Your task to perform on an android device: Clear all items from cart on target. Add "macbook air" to the cart on target Image 0: 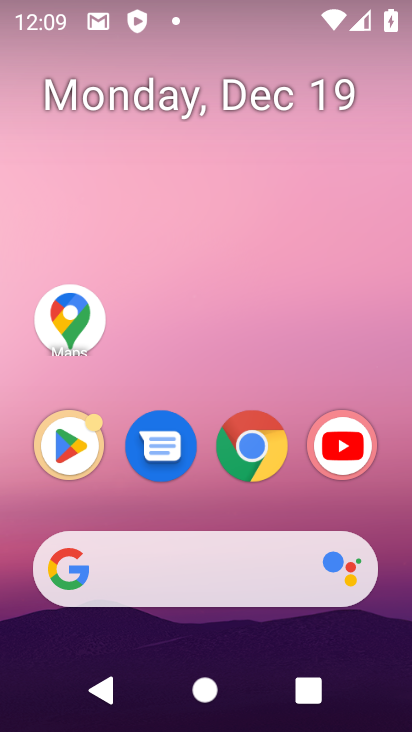
Step 0: click (214, 468)
Your task to perform on an android device: Clear all items from cart on target. Add "macbook air" to the cart on target Image 1: 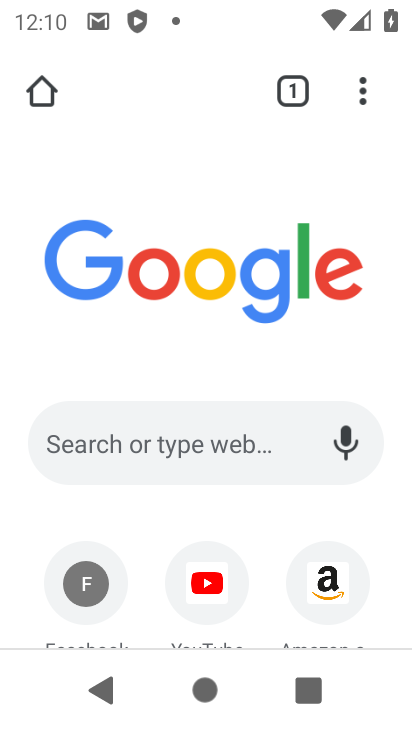
Step 1: click (172, 467)
Your task to perform on an android device: Clear all items from cart on target. Add "macbook air" to the cart on target Image 2: 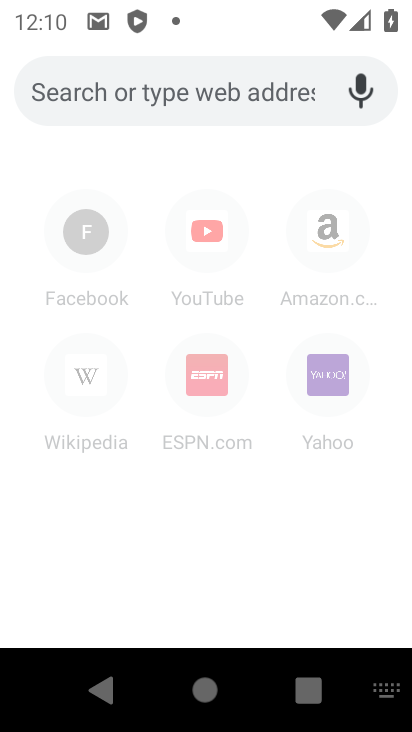
Step 2: type "target"
Your task to perform on an android device: Clear all items from cart on target. Add "macbook air" to the cart on target Image 3: 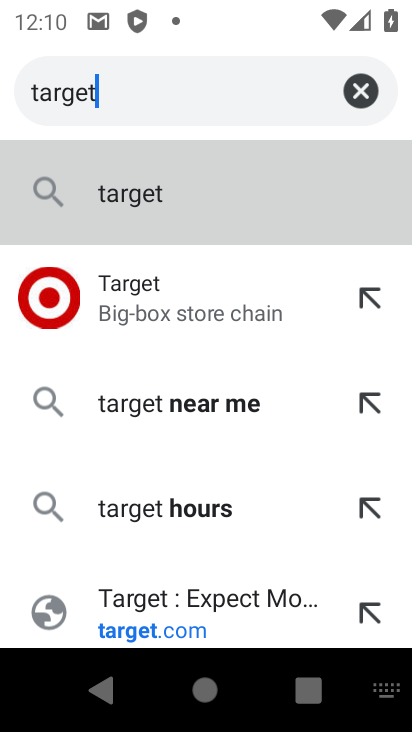
Step 3: click (116, 293)
Your task to perform on an android device: Clear all items from cart on target. Add "macbook air" to the cart on target Image 4: 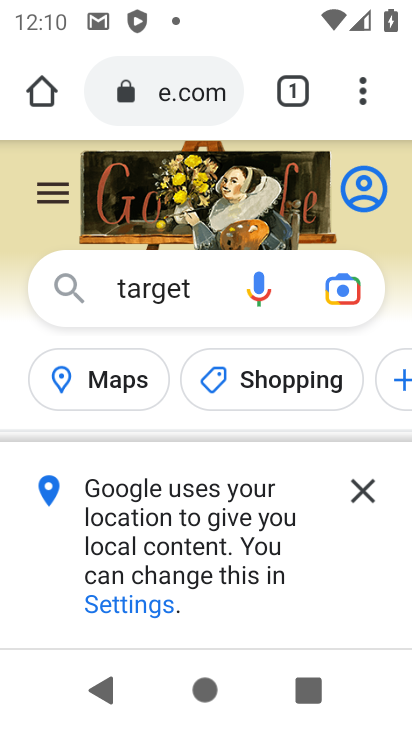
Step 4: click (341, 497)
Your task to perform on an android device: Clear all items from cart on target. Add "macbook air" to the cart on target Image 5: 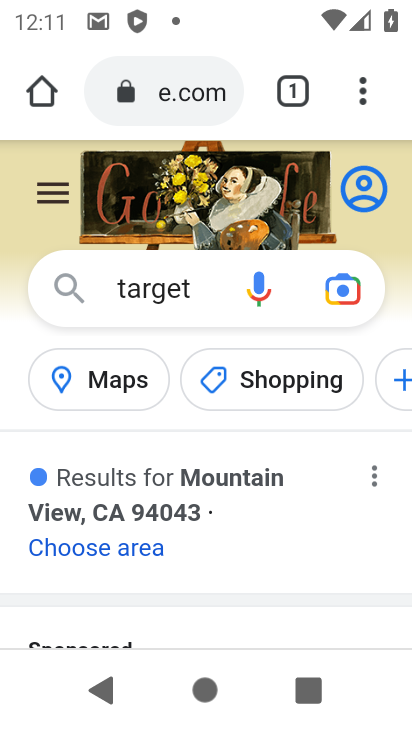
Step 5: click (135, 623)
Your task to perform on an android device: Clear all items from cart on target. Add "macbook air" to the cart on target Image 6: 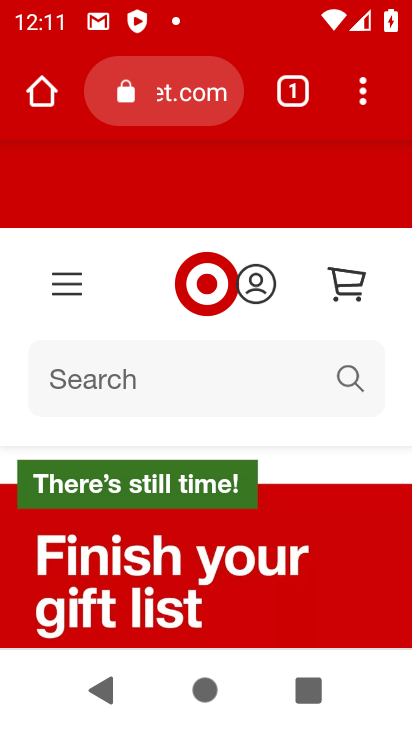
Step 6: click (117, 398)
Your task to perform on an android device: Clear all items from cart on target. Add "macbook air" to the cart on target Image 7: 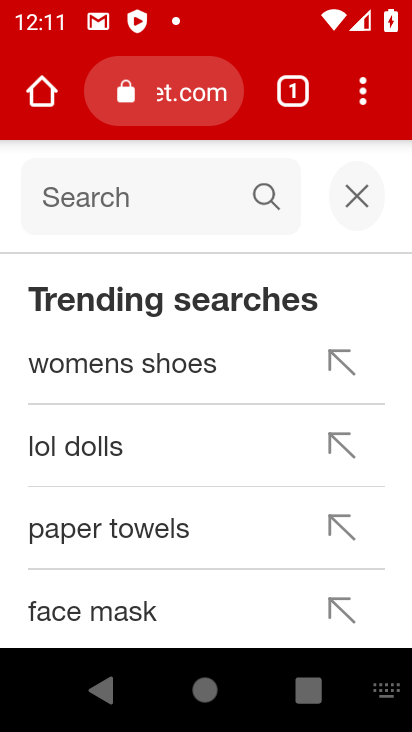
Step 7: type "macbook air"
Your task to perform on an android device: Clear all items from cart on target. Add "macbook air" to the cart on target Image 8: 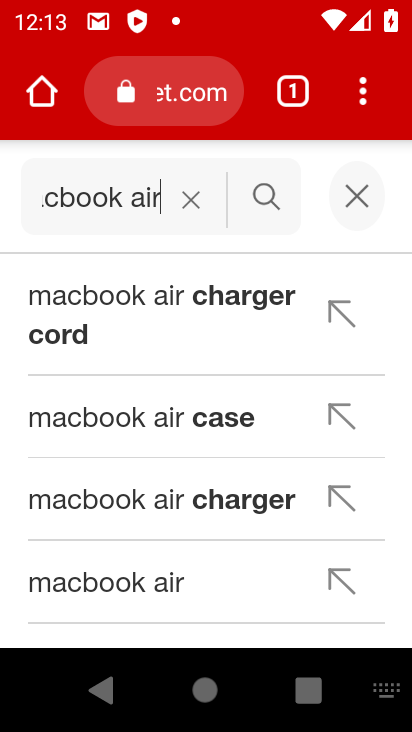
Step 8: click (178, 333)
Your task to perform on an android device: Clear all items from cart on target. Add "macbook air" to the cart on target Image 9: 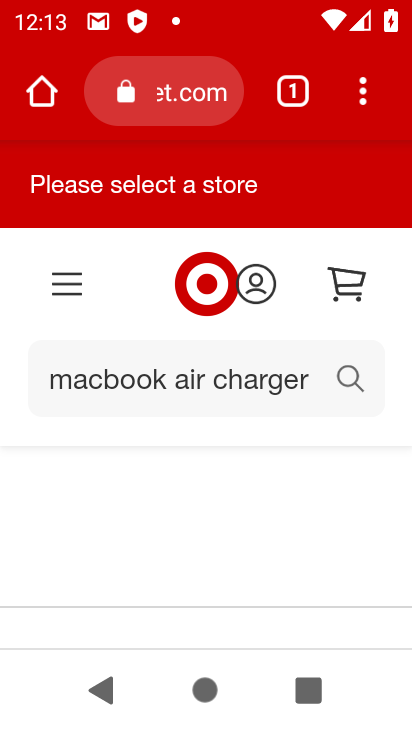
Step 9: task complete